Your task to perform on an android device: turn off location Image 0: 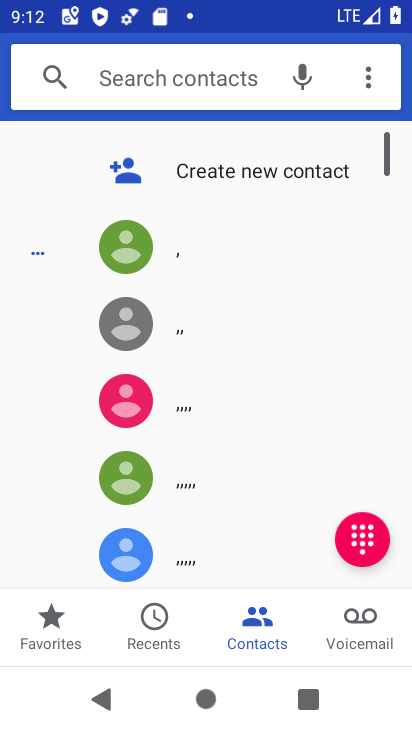
Step 0: press home button
Your task to perform on an android device: turn off location Image 1: 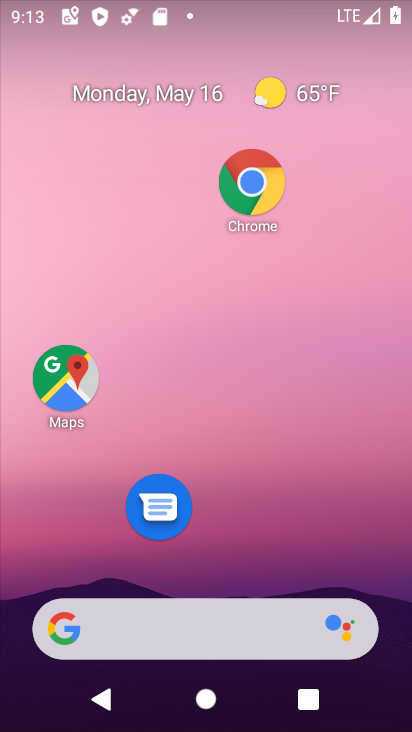
Step 1: drag from (217, 579) to (340, 18)
Your task to perform on an android device: turn off location Image 2: 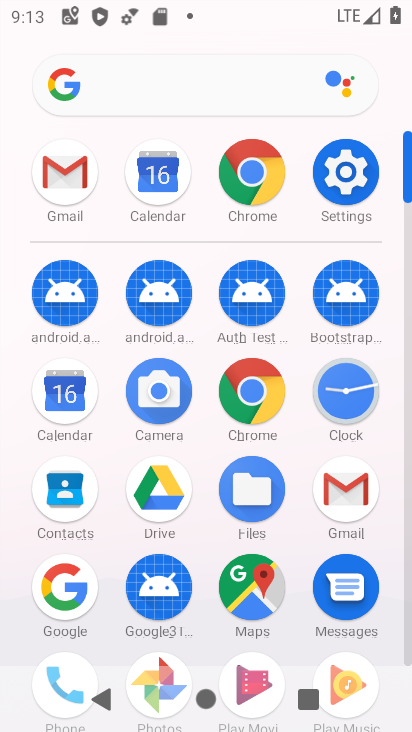
Step 2: click (350, 167)
Your task to perform on an android device: turn off location Image 3: 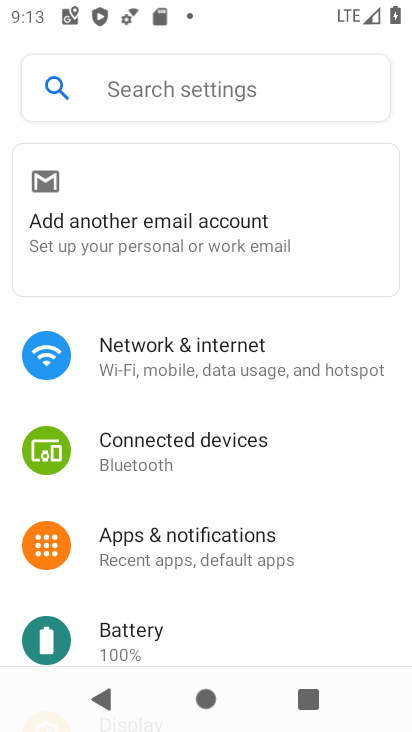
Step 3: drag from (126, 459) to (110, 31)
Your task to perform on an android device: turn off location Image 4: 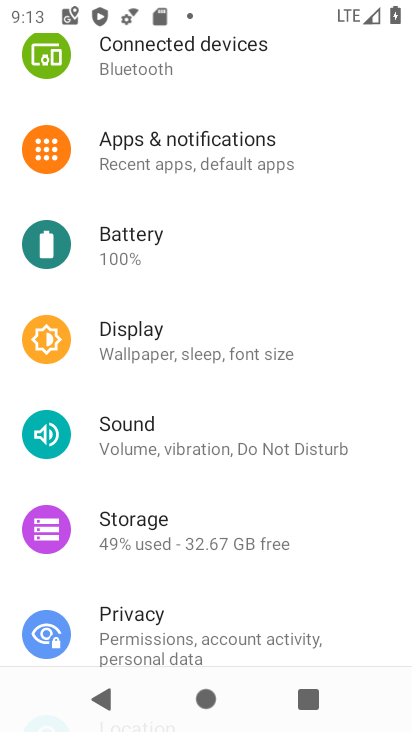
Step 4: drag from (193, 508) to (186, 206)
Your task to perform on an android device: turn off location Image 5: 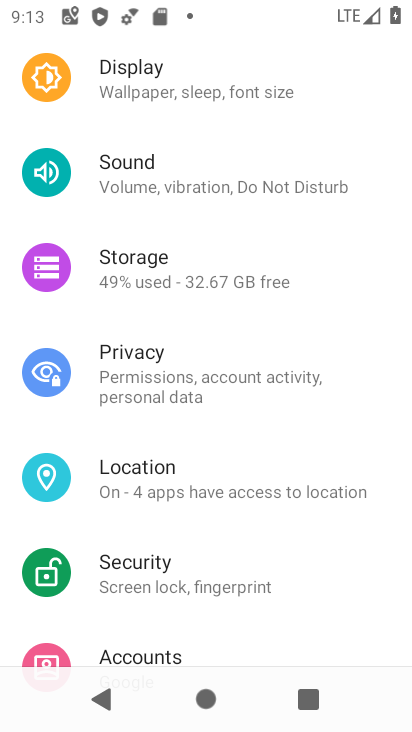
Step 5: click (146, 456)
Your task to perform on an android device: turn off location Image 6: 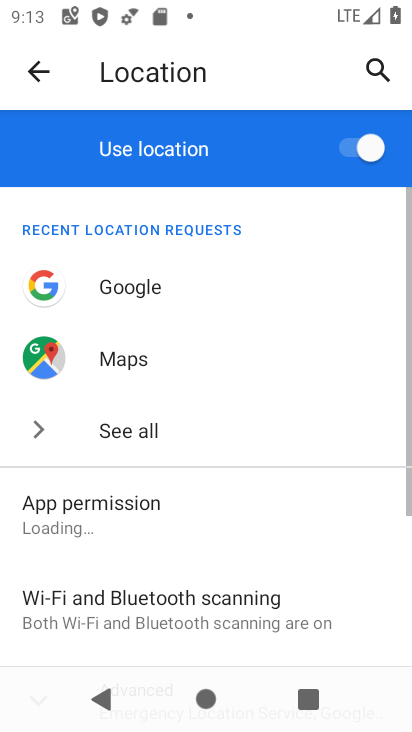
Step 6: click (343, 153)
Your task to perform on an android device: turn off location Image 7: 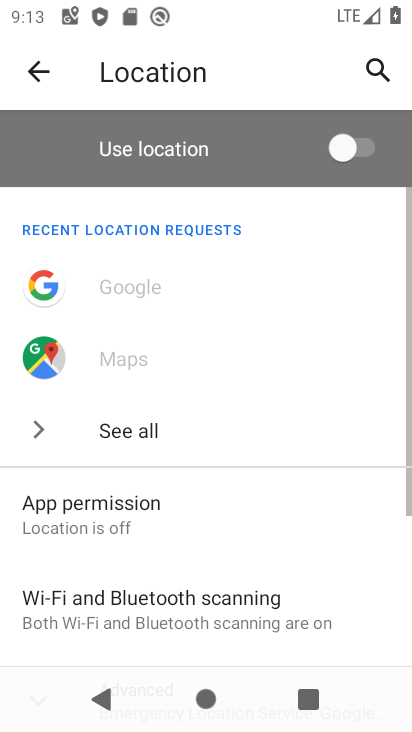
Step 7: task complete